Your task to perform on an android device: Open a new tab in the chrome app Image 0: 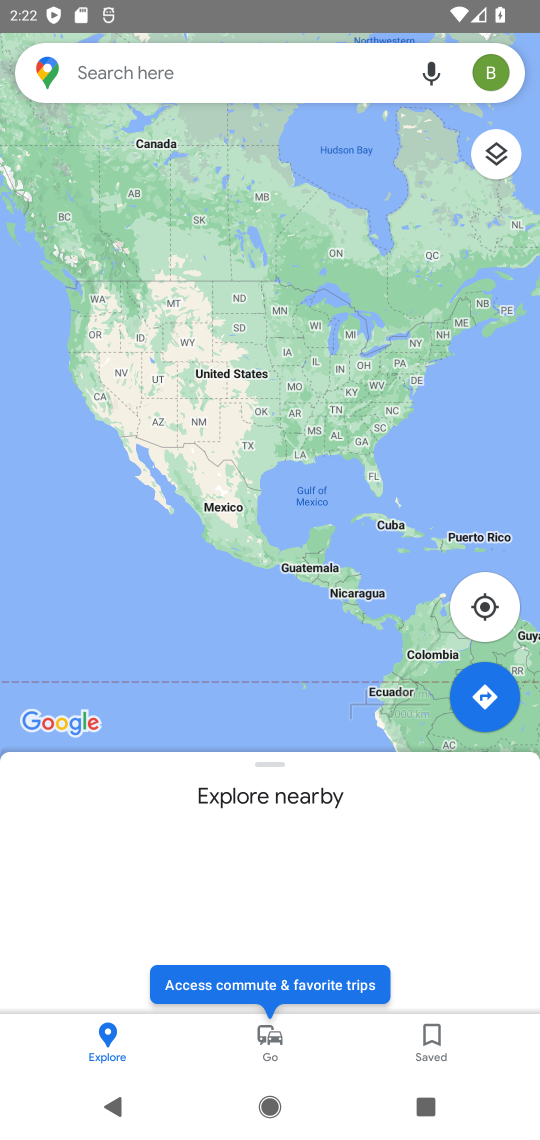
Step 0: press home button
Your task to perform on an android device: Open a new tab in the chrome app Image 1: 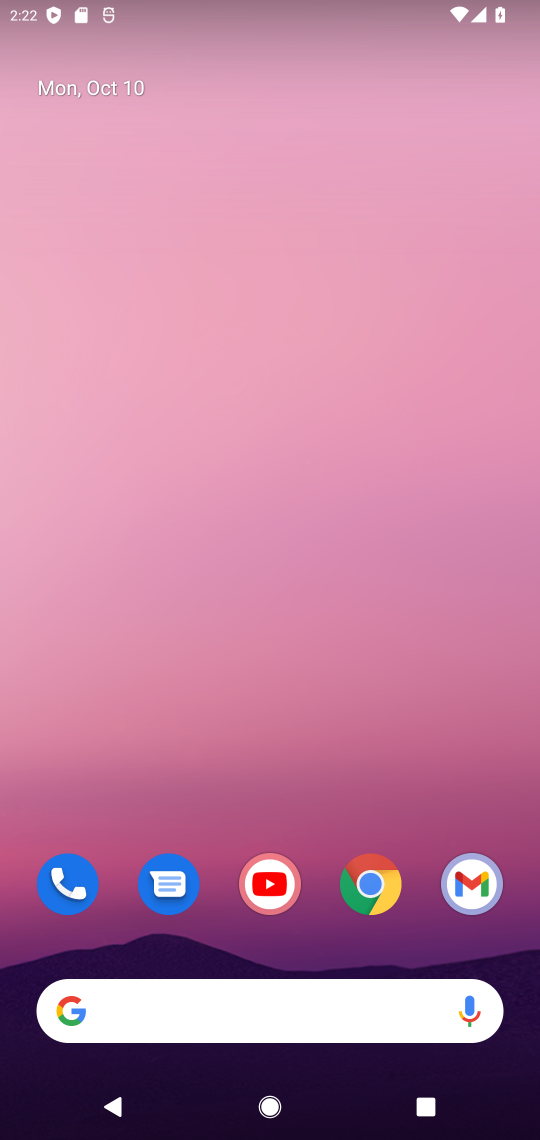
Step 1: click (372, 882)
Your task to perform on an android device: Open a new tab in the chrome app Image 2: 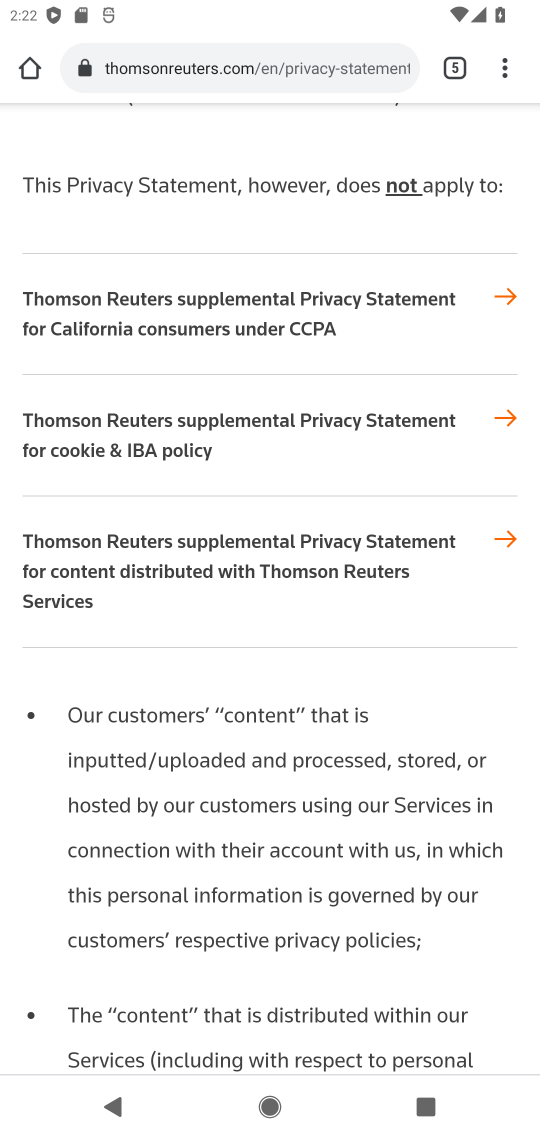
Step 2: click (499, 67)
Your task to perform on an android device: Open a new tab in the chrome app Image 3: 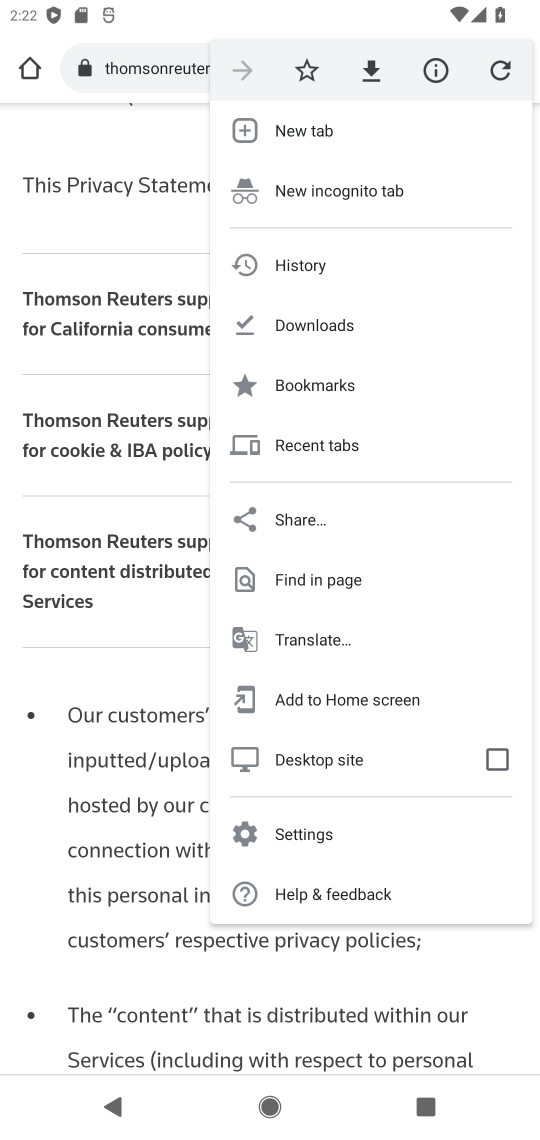
Step 3: click (278, 130)
Your task to perform on an android device: Open a new tab in the chrome app Image 4: 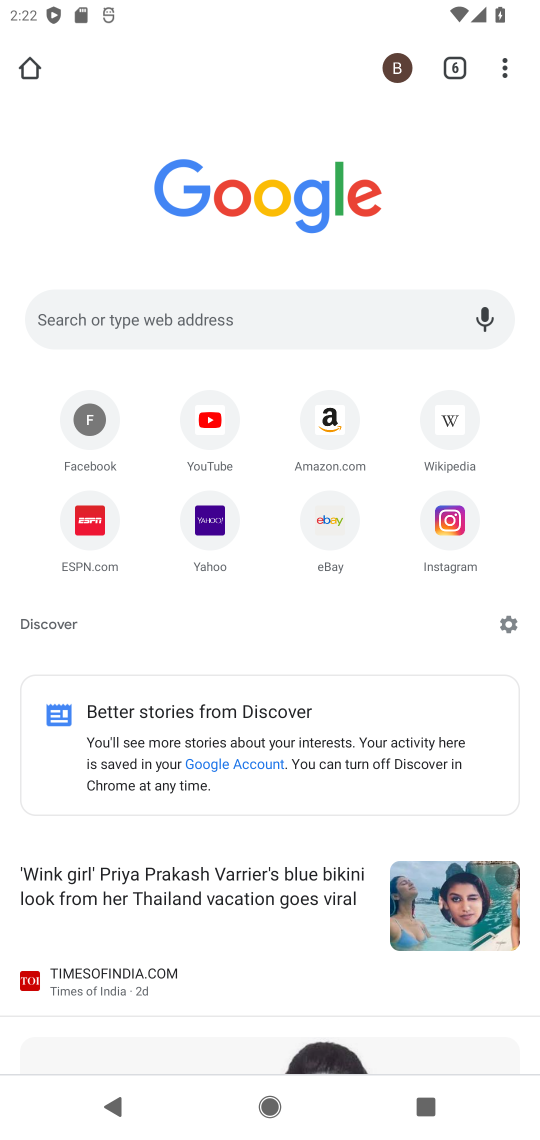
Step 4: task complete